Your task to perform on an android device: Show me popular games on the Play Store Image 0: 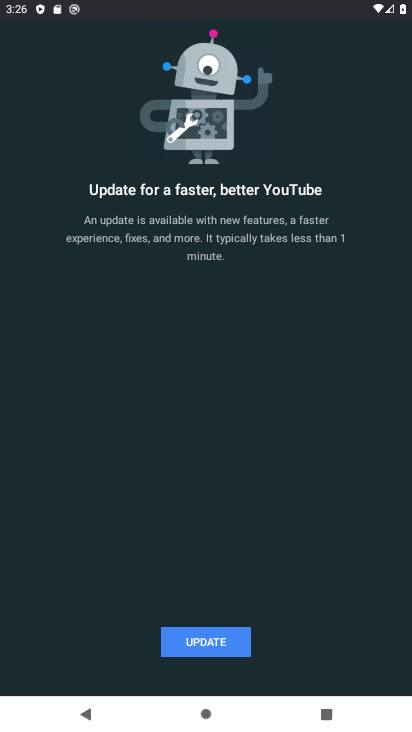
Step 0: task impossible